Your task to perform on an android device: Open the web browser Image 0: 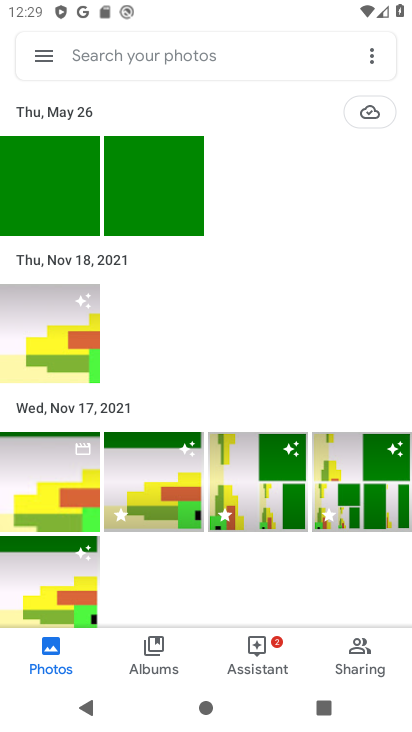
Step 0: press home button
Your task to perform on an android device: Open the web browser Image 1: 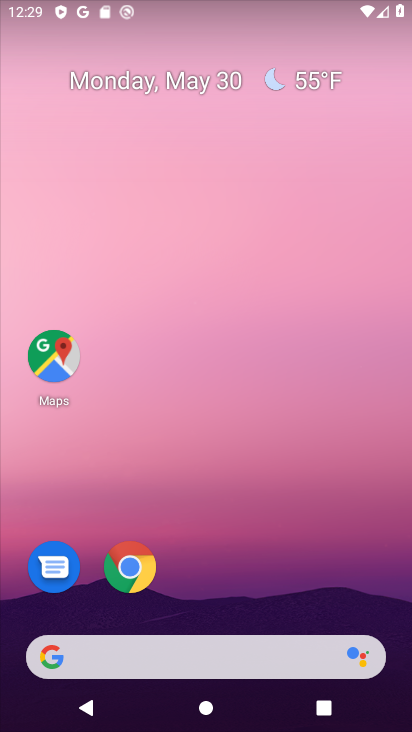
Step 1: click (138, 560)
Your task to perform on an android device: Open the web browser Image 2: 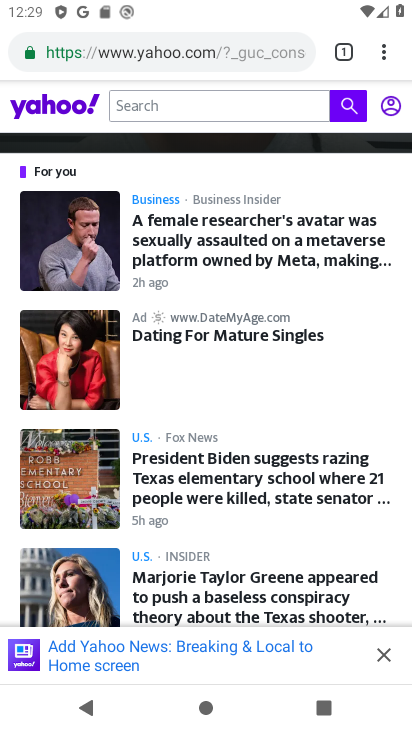
Step 2: task complete